Your task to perform on an android device: Show me popular games on the Play Store Image 0: 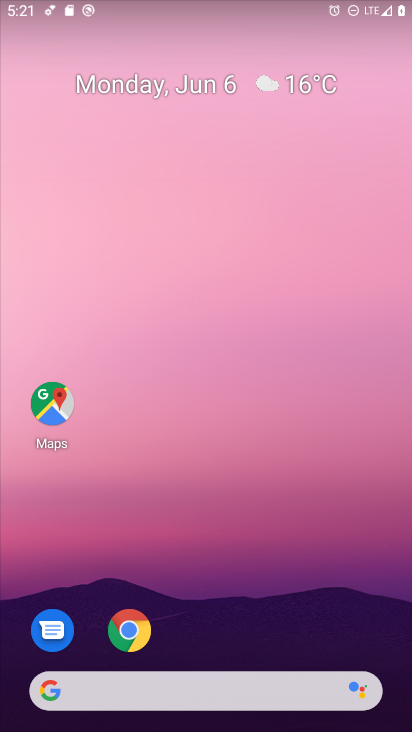
Step 0: press home button
Your task to perform on an android device: Show me popular games on the Play Store Image 1: 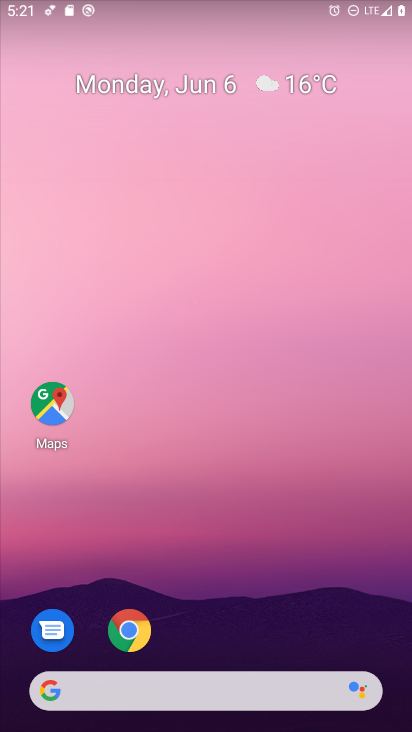
Step 1: drag from (302, 597) to (185, 14)
Your task to perform on an android device: Show me popular games on the Play Store Image 2: 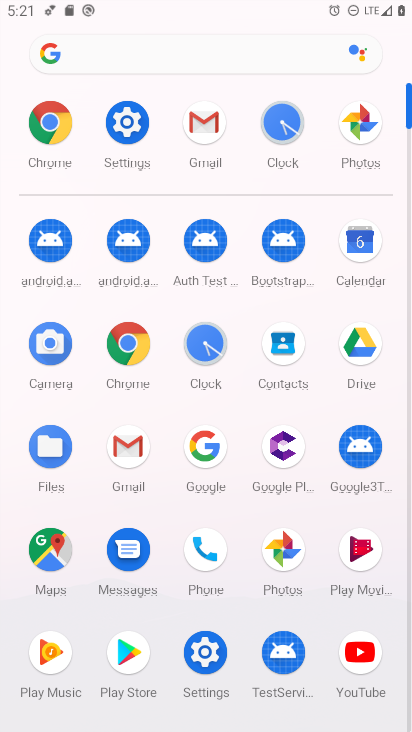
Step 2: click (125, 658)
Your task to perform on an android device: Show me popular games on the Play Store Image 3: 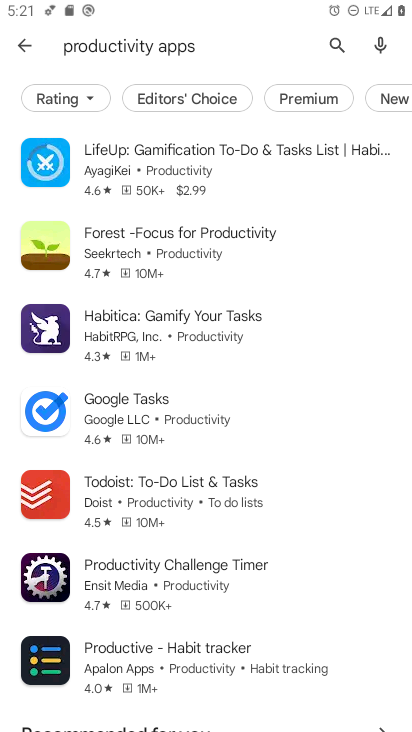
Step 3: click (27, 50)
Your task to perform on an android device: Show me popular games on the Play Store Image 4: 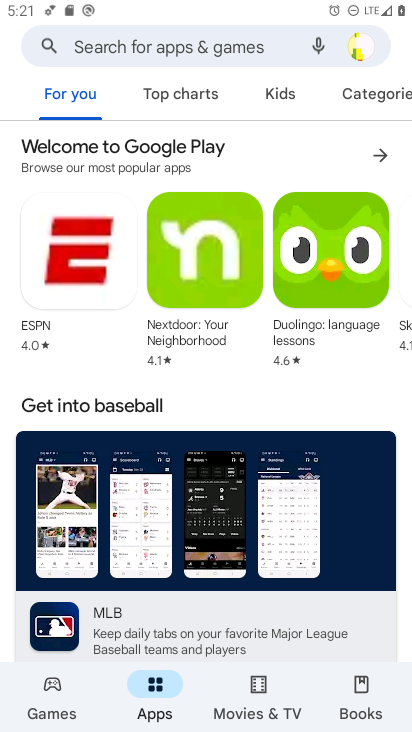
Step 4: click (188, 101)
Your task to perform on an android device: Show me popular games on the Play Store Image 5: 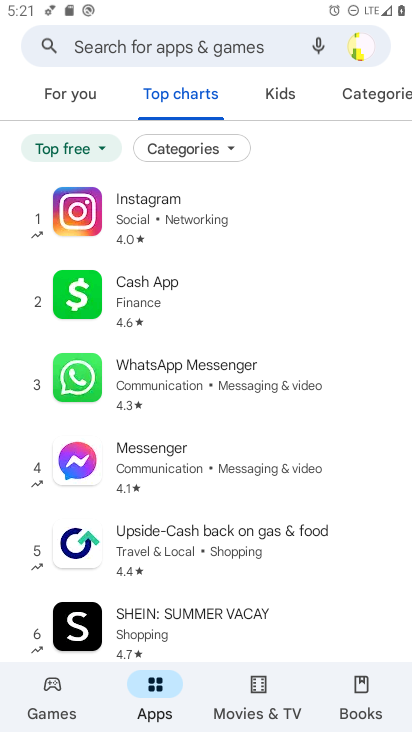
Step 5: task complete